Your task to perform on an android device: Search for sushi restaurants on Maps Image 0: 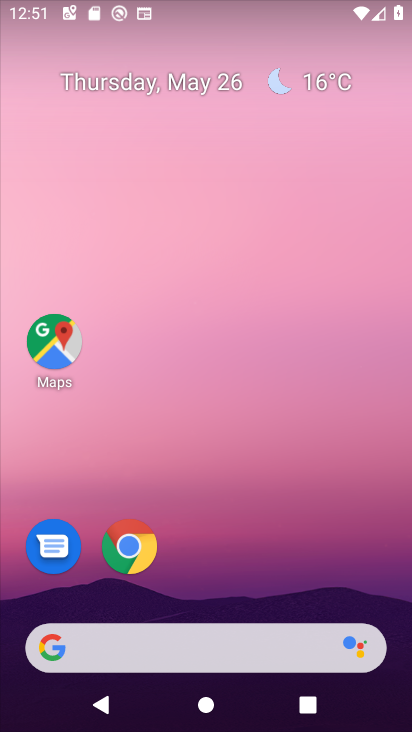
Step 0: click (55, 342)
Your task to perform on an android device: Search for sushi restaurants on Maps Image 1: 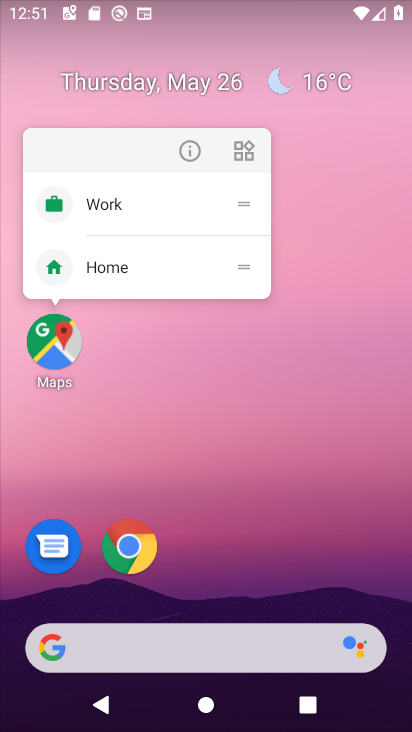
Step 1: click (40, 339)
Your task to perform on an android device: Search for sushi restaurants on Maps Image 2: 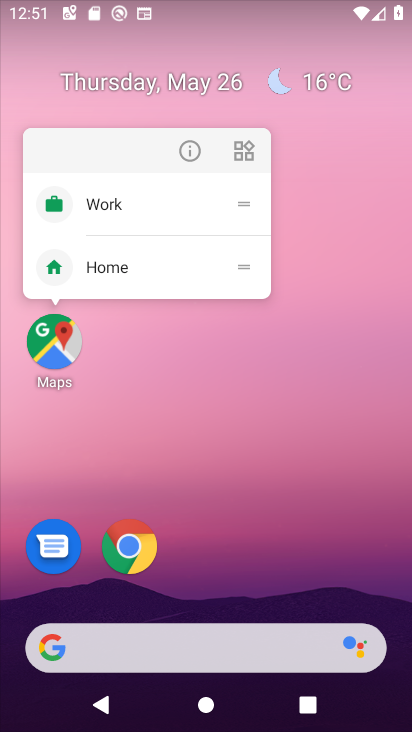
Step 2: click (39, 338)
Your task to perform on an android device: Search for sushi restaurants on Maps Image 3: 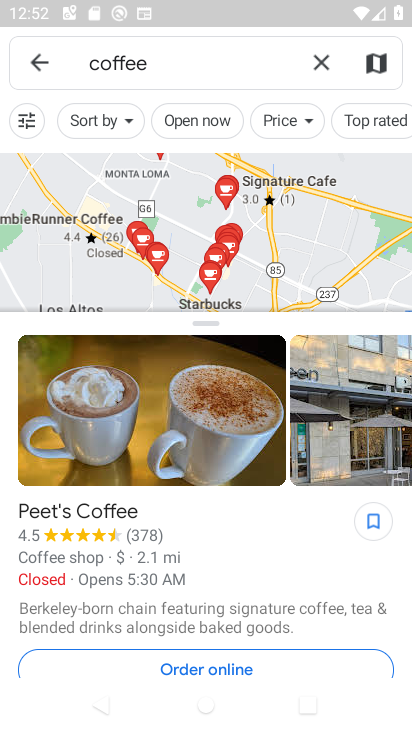
Step 3: click (316, 61)
Your task to perform on an android device: Search for sushi restaurants on Maps Image 4: 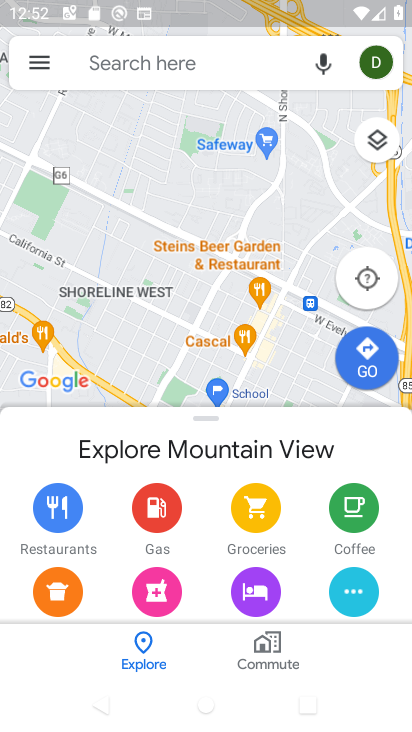
Step 4: type "sushi restaurants"
Your task to perform on an android device: Search for sushi restaurants on Maps Image 5: 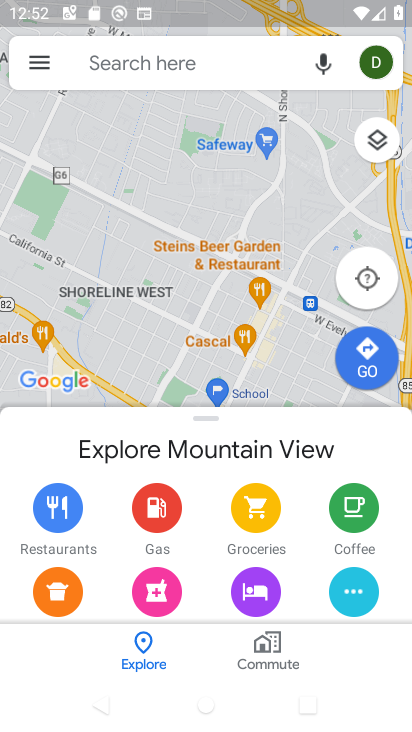
Step 5: click (115, 68)
Your task to perform on an android device: Search for sushi restaurants on Maps Image 6: 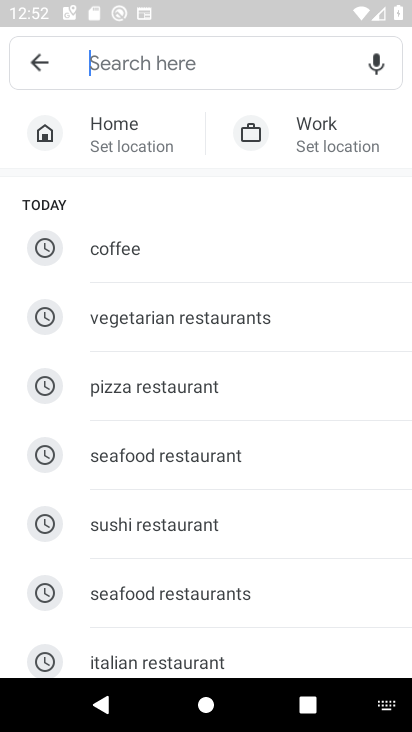
Step 6: type "sushi restaurants"
Your task to perform on an android device: Search for sushi restaurants on Maps Image 7: 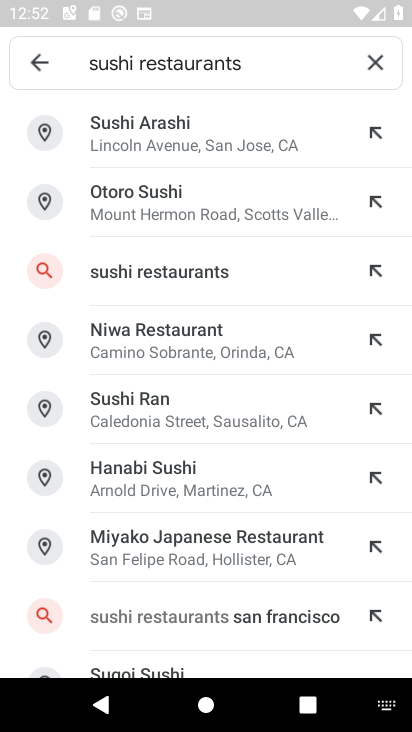
Step 7: click (208, 270)
Your task to perform on an android device: Search for sushi restaurants on Maps Image 8: 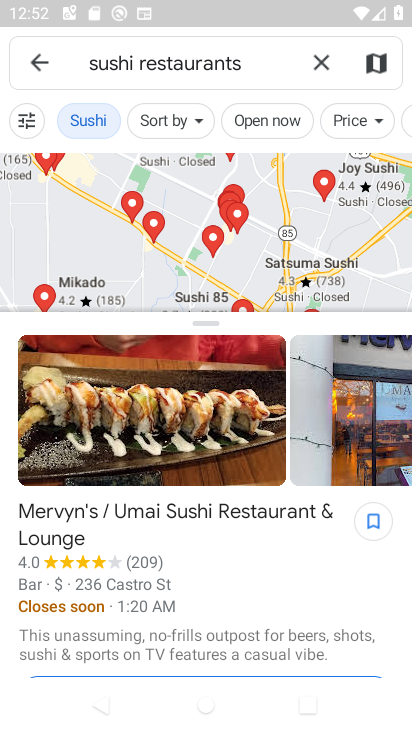
Step 8: task complete